Your task to perform on an android device: toggle sleep mode Image 0: 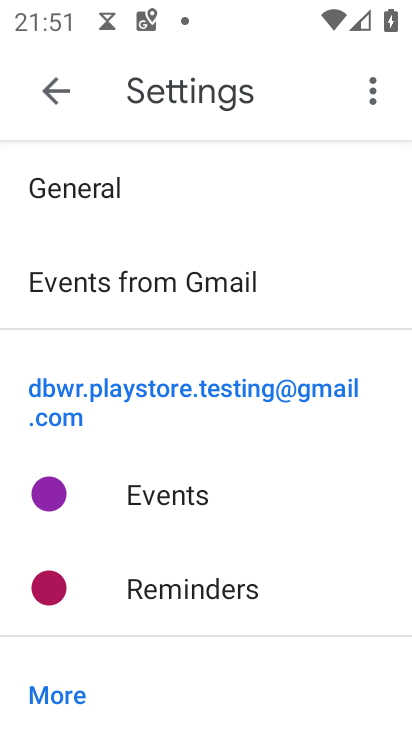
Step 0: press home button
Your task to perform on an android device: toggle sleep mode Image 1: 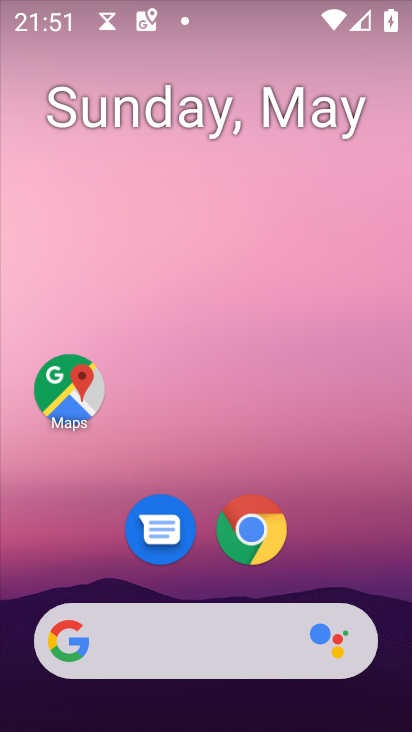
Step 1: drag from (210, 585) to (218, 16)
Your task to perform on an android device: toggle sleep mode Image 2: 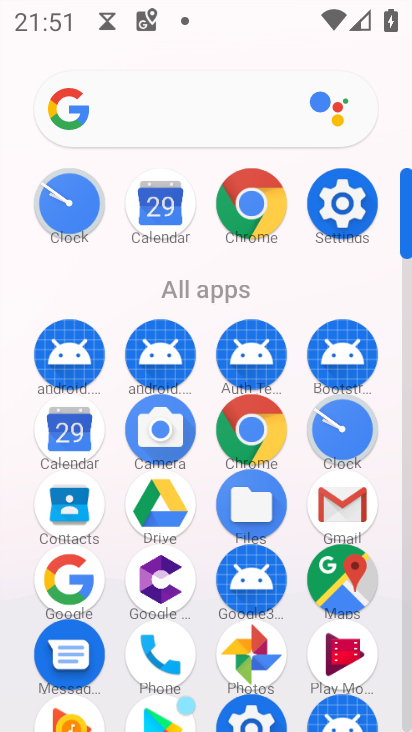
Step 2: click (337, 195)
Your task to perform on an android device: toggle sleep mode Image 3: 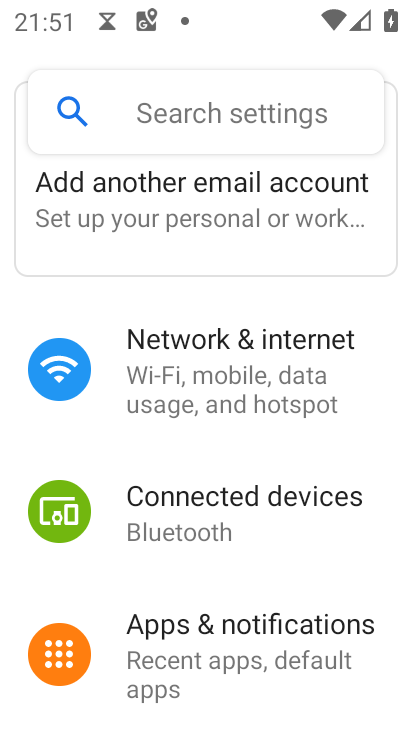
Step 3: drag from (269, 610) to (193, 237)
Your task to perform on an android device: toggle sleep mode Image 4: 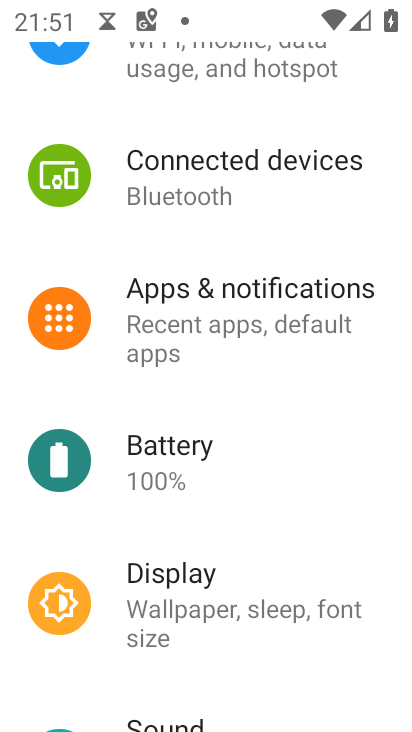
Step 4: click (225, 590)
Your task to perform on an android device: toggle sleep mode Image 5: 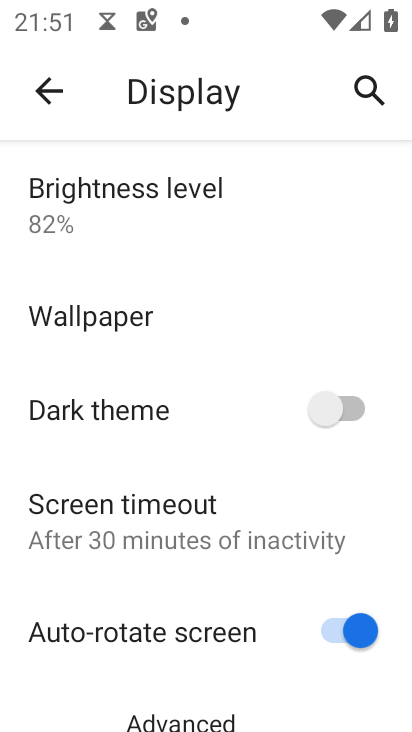
Step 5: drag from (149, 585) to (145, 120)
Your task to perform on an android device: toggle sleep mode Image 6: 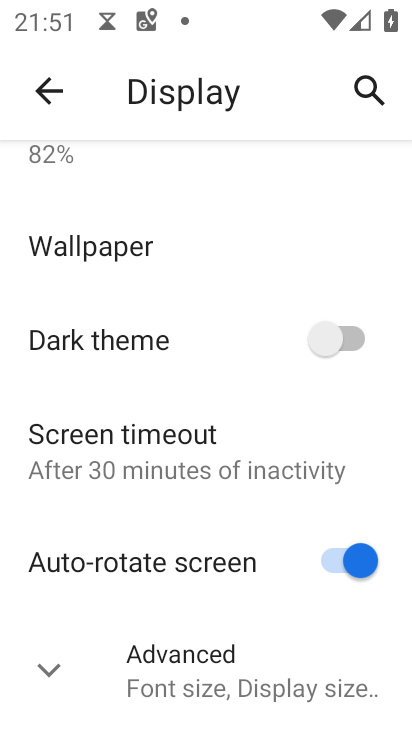
Step 6: click (144, 675)
Your task to perform on an android device: toggle sleep mode Image 7: 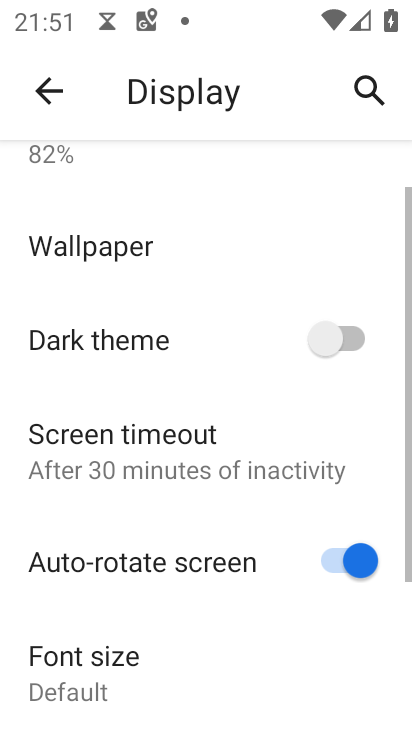
Step 7: task complete